Your task to perform on an android device: open a new tab in the chrome app Image 0: 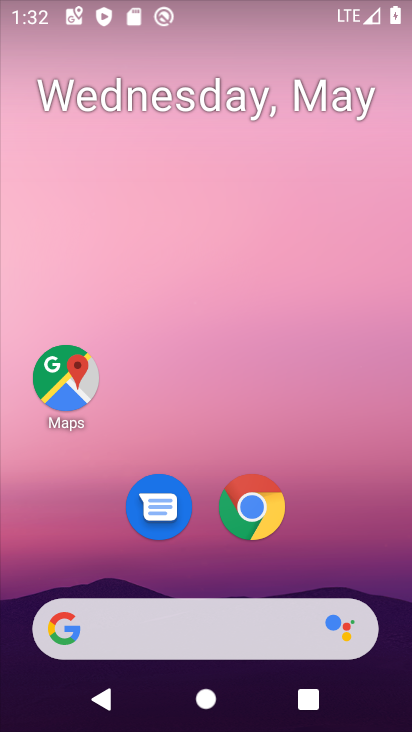
Step 0: click (275, 509)
Your task to perform on an android device: open a new tab in the chrome app Image 1: 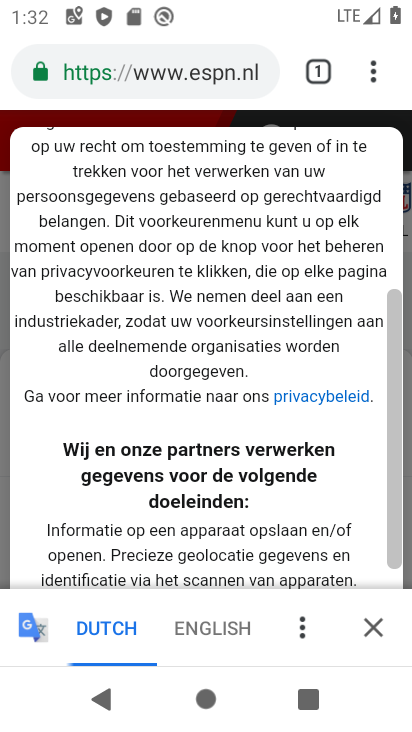
Step 1: click (374, 62)
Your task to perform on an android device: open a new tab in the chrome app Image 2: 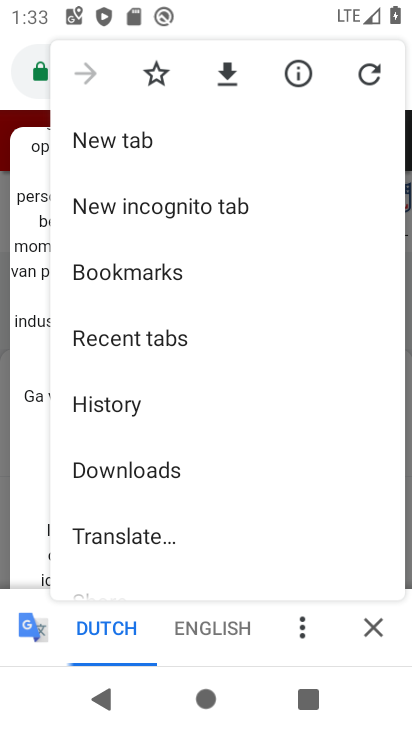
Step 2: click (193, 161)
Your task to perform on an android device: open a new tab in the chrome app Image 3: 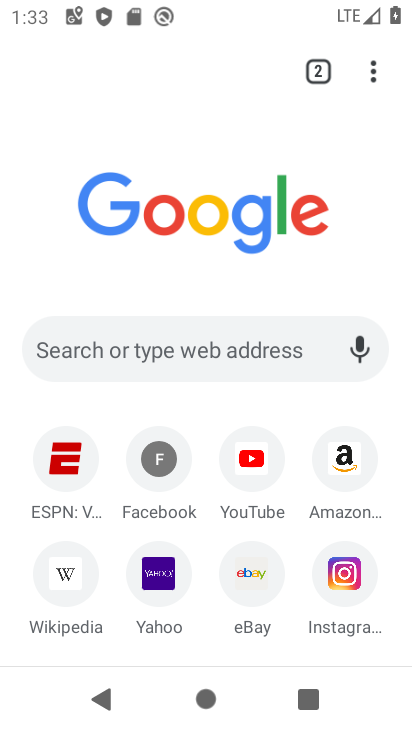
Step 3: task complete